Your task to perform on an android device: What's the news in Singapore? Image 0: 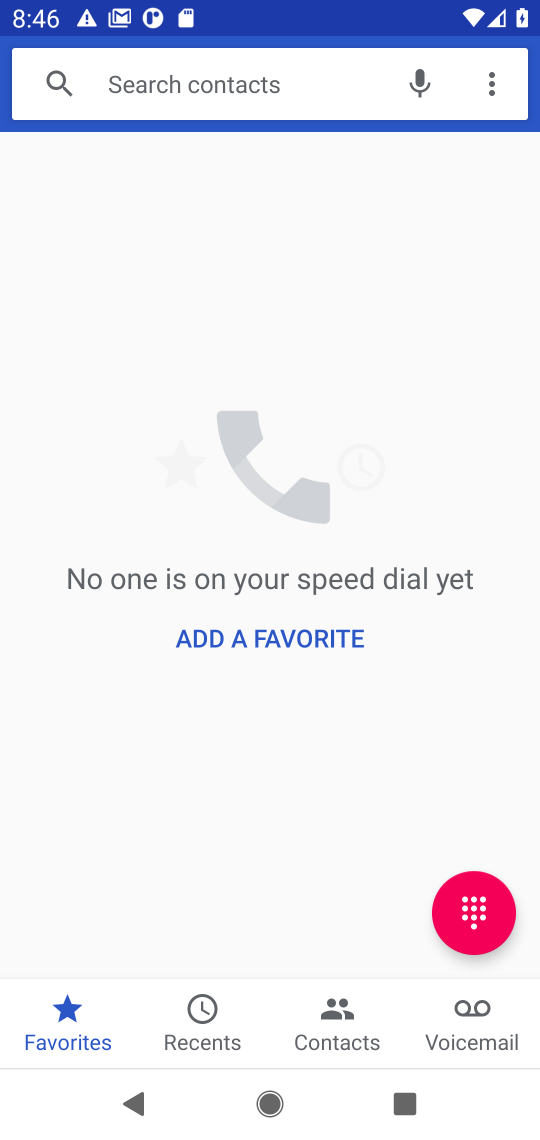
Step 0: press home button
Your task to perform on an android device: What's the news in Singapore? Image 1: 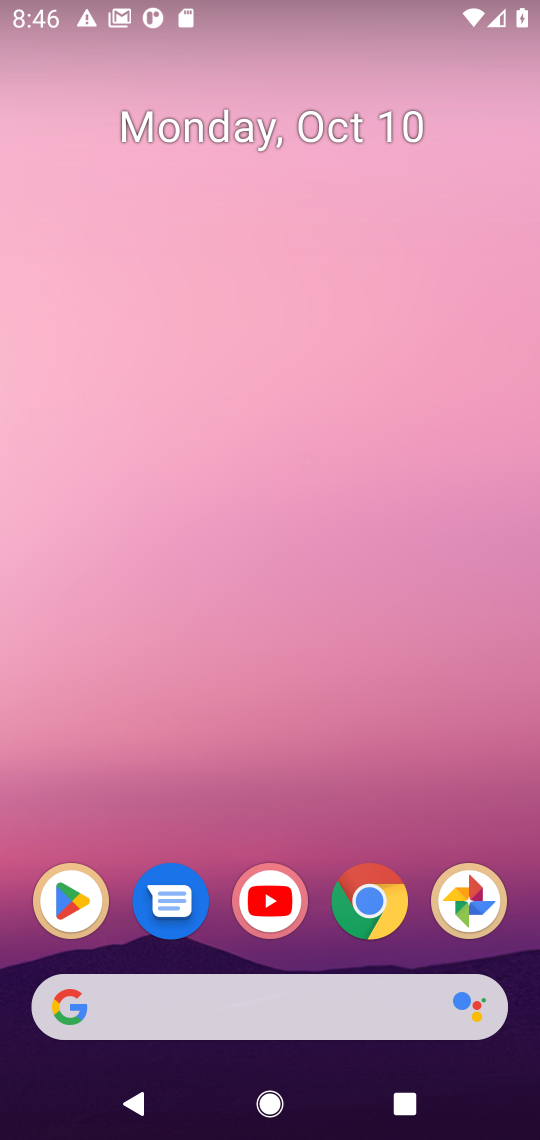
Step 1: click (210, 1014)
Your task to perform on an android device: What's the news in Singapore? Image 2: 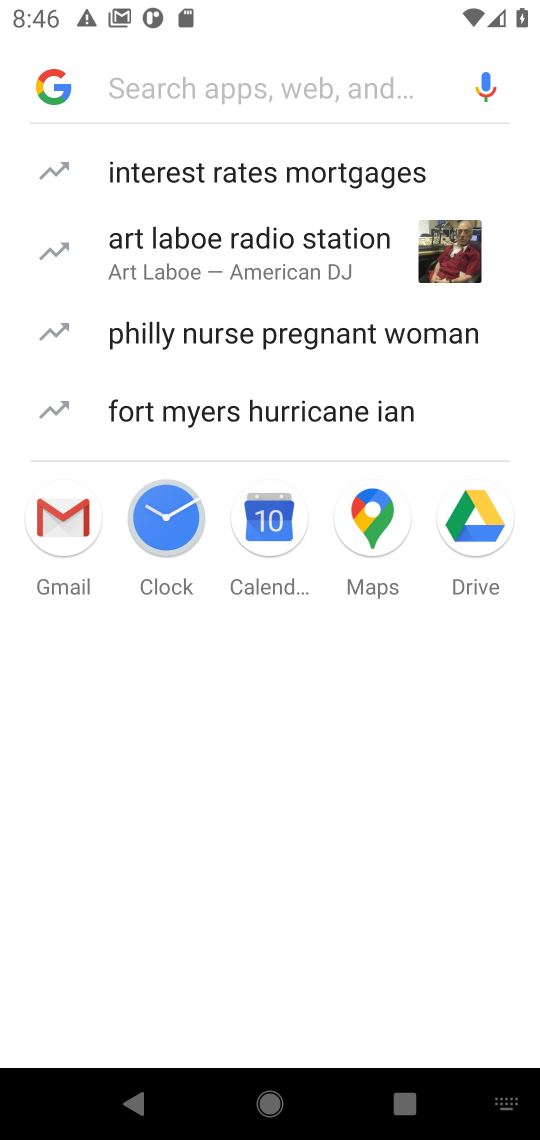
Step 2: type "What's the news in Singapore"
Your task to perform on an android device: What's the news in Singapore? Image 3: 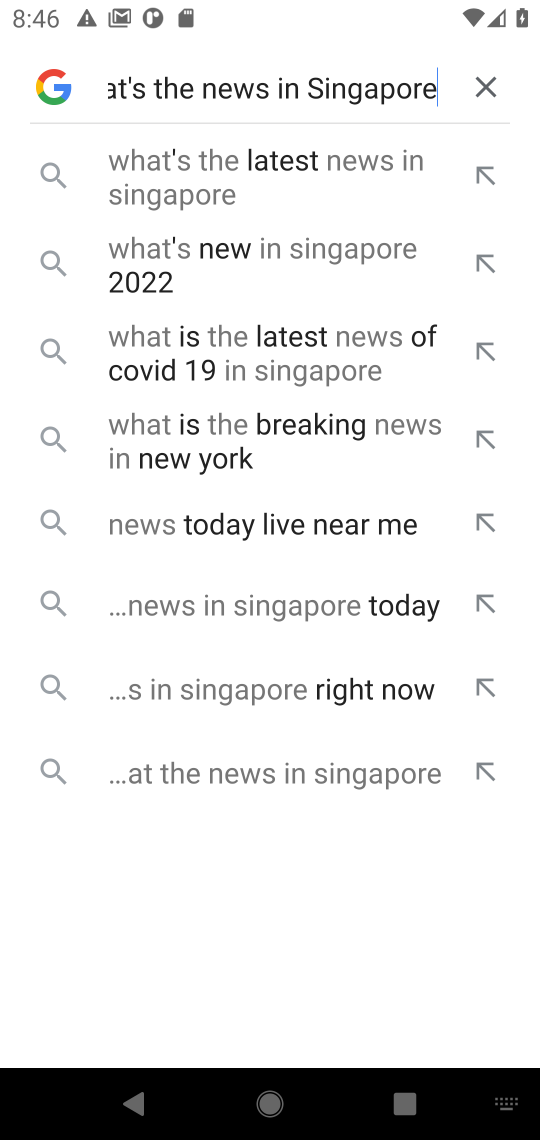
Step 3: press enter
Your task to perform on an android device: What's the news in Singapore? Image 4: 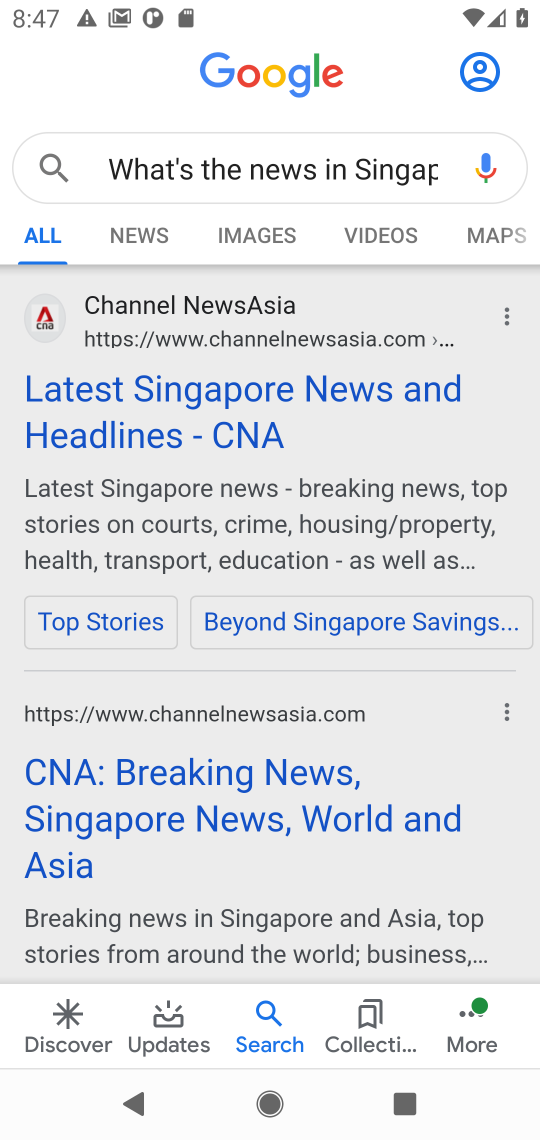
Step 4: click (277, 411)
Your task to perform on an android device: What's the news in Singapore? Image 5: 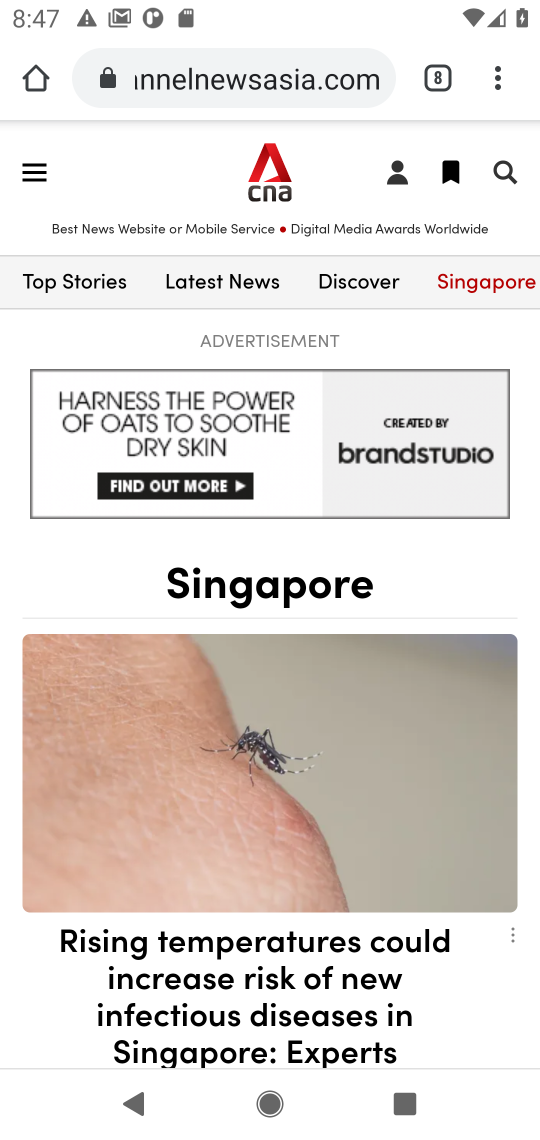
Step 5: task complete